Your task to perform on an android device: turn on the 12-hour format for clock Image 0: 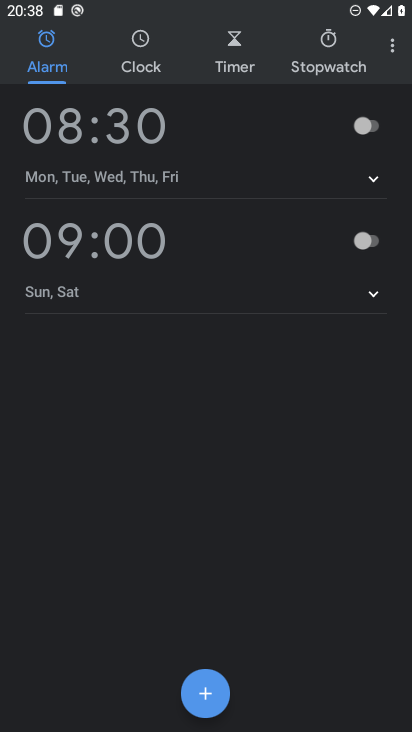
Step 0: press home button
Your task to perform on an android device: turn on the 12-hour format for clock Image 1: 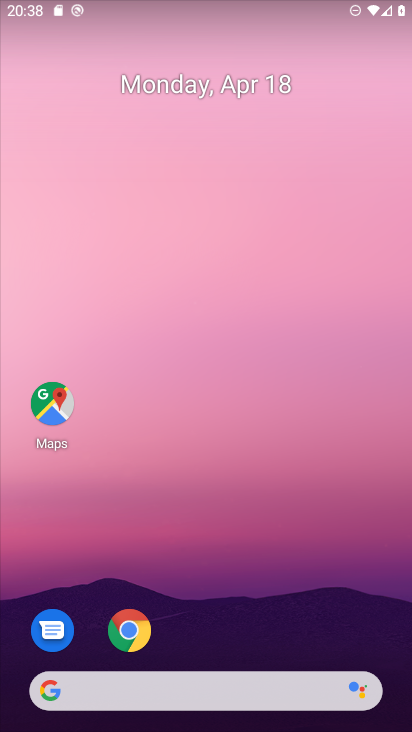
Step 1: drag from (211, 642) to (303, 288)
Your task to perform on an android device: turn on the 12-hour format for clock Image 2: 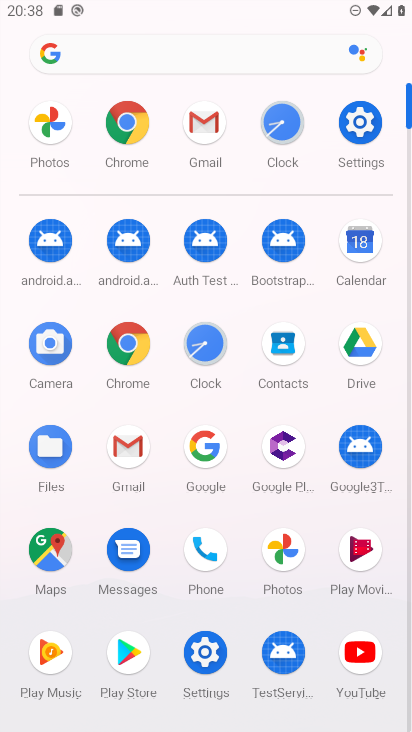
Step 2: click (204, 661)
Your task to perform on an android device: turn on the 12-hour format for clock Image 3: 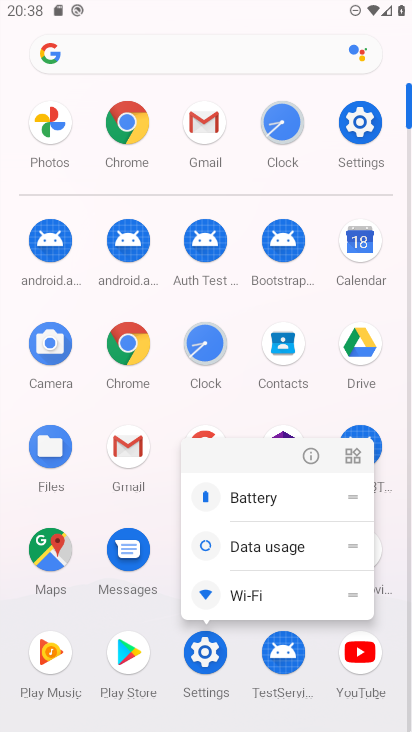
Step 3: click (204, 662)
Your task to perform on an android device: turn on the 12-hour format for clock Image 4: 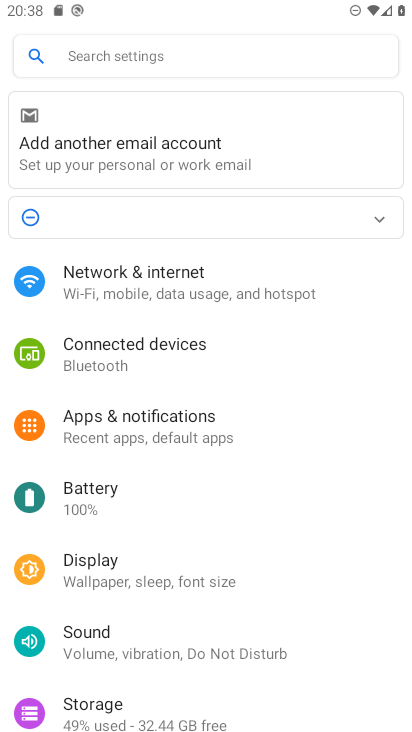
Step 4: drag from (124, 643) to (175, 291)
Your task to perform on an android device: turn on the 12-hour format for clock Image 5: 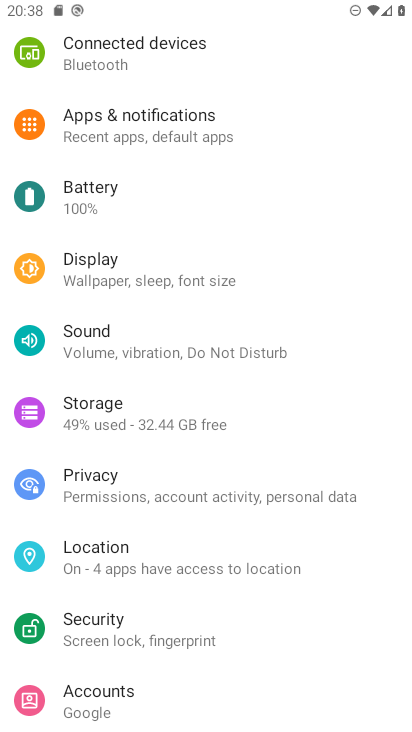
Step 5: drag from (103, 624) to (180, 326)
Your task to perform on an android device: turn on the 12-hour format for clock Image 6: 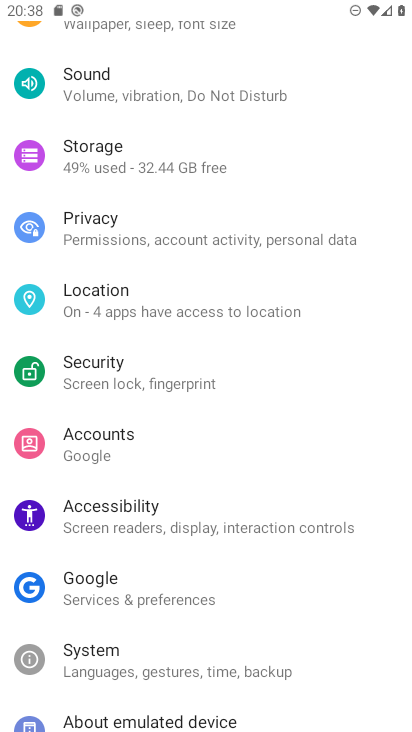
Step 6: click (100, 667)
Your task to perform on an android device: turn on the 12-hour format for clock Image 7: 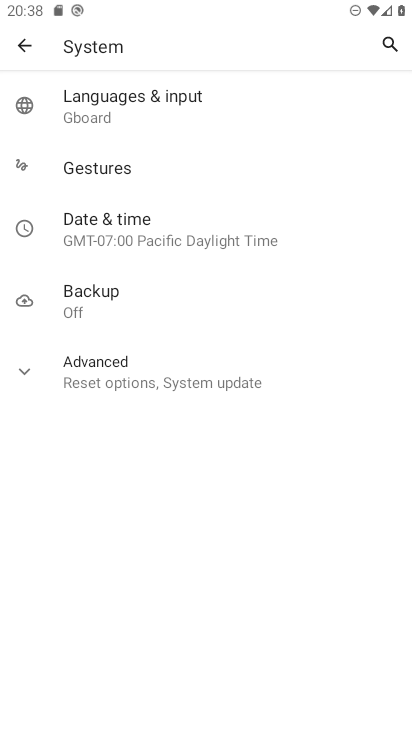
Step 7: click (190, 229)
Your task to perform on an android device: turn on the 12-hour format for clock Image 8: 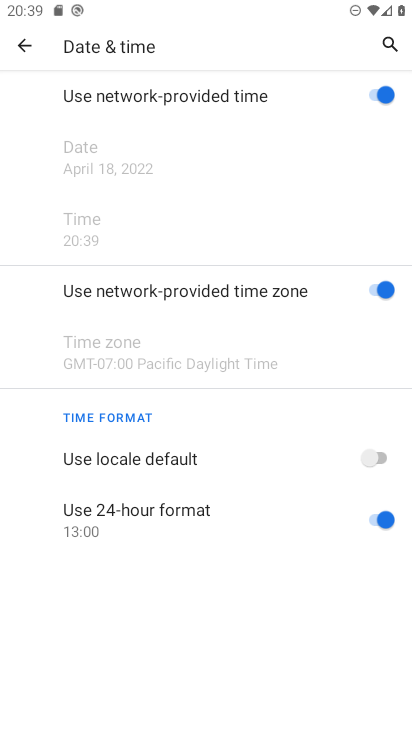
Step 8: click (373, 451)
Your task to perform on an android device: turn on the 12-hour format for clock Image 9: 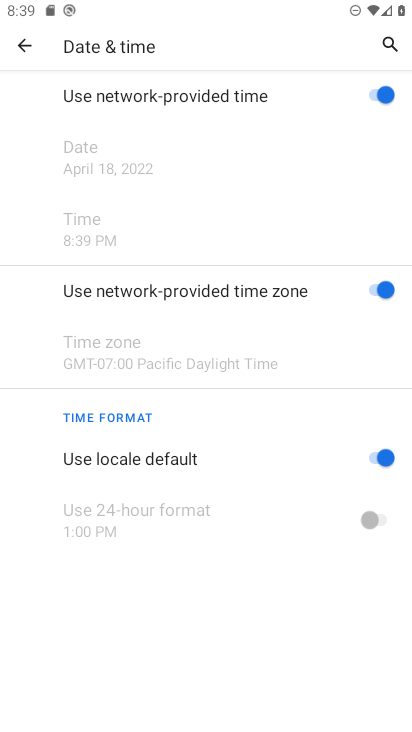
Step 9: task complete